Your task to perform on an android device: Go to wifi settings Image 0: 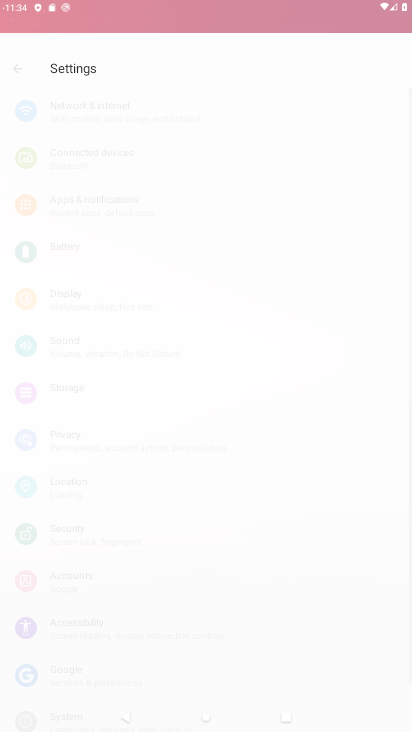
Step 0: press home button
Your task to perform on an android device: Go to wifi settings Image 1: 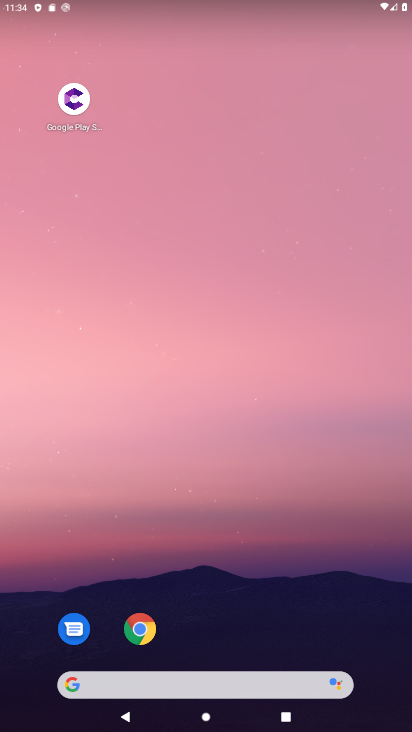
Step 1: press home button
Your task to perform on an android device: Go to wifi settings Image 2: 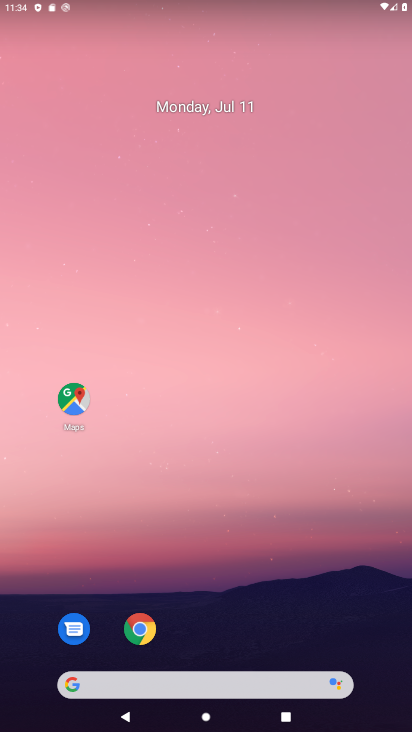
Step 2: drag from (340, 588) to (332, 138)
Your task to perform on an android device: Go to wifi settings Image 3: 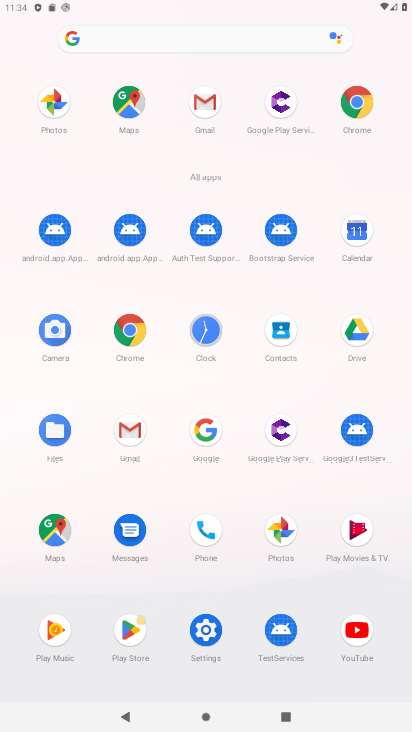
Step 3: click (199, 634)
Your task to perform on an android device: Go to wifi settings Image 4: 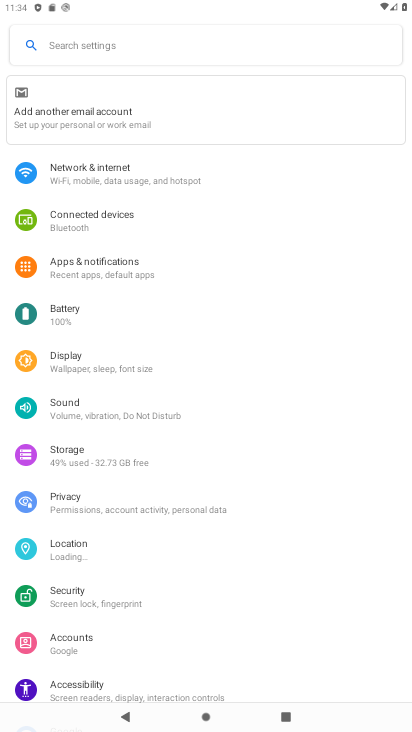
Step 4: drag from (347, 539) to (356, 448)
Your task to perform on an android device: Go to wifi settings Image 5: 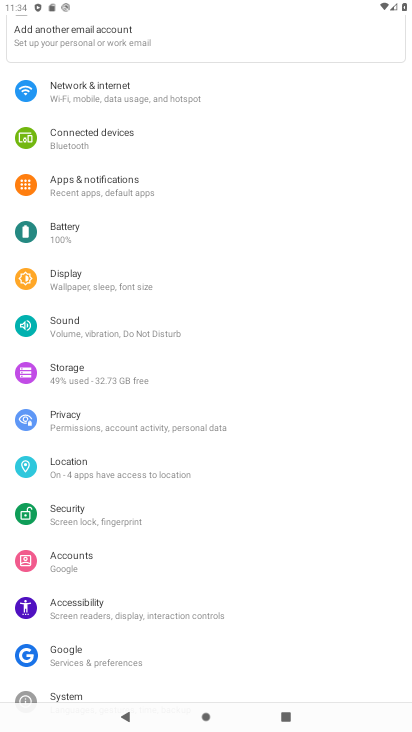
Step 5: drag from (340, 554) to (351, 458)
Your task to perform on an android device: Go to wifi settings Image 6: 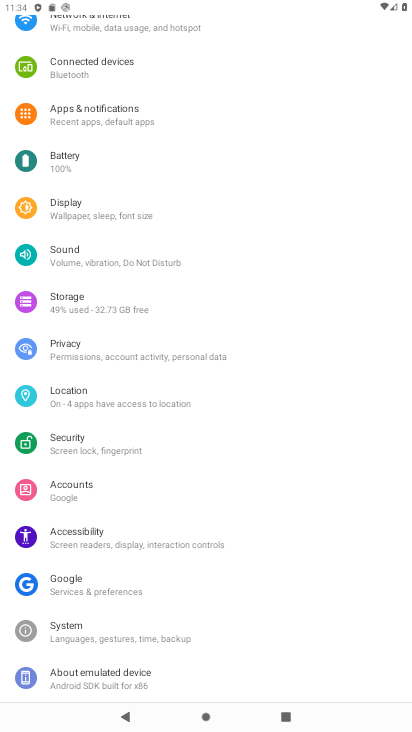
Step 6: drag from (336, 549) to (355, 362)
Your task to perform on an android device: Go to wifi settings Image 7: 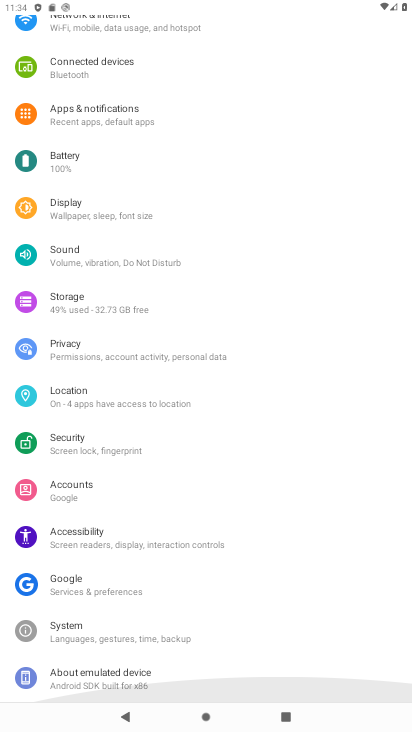
Step 7: drag from (355, 257) to (356, 360)
Your task to perform on an android device: Go to wifi settings Image 8: 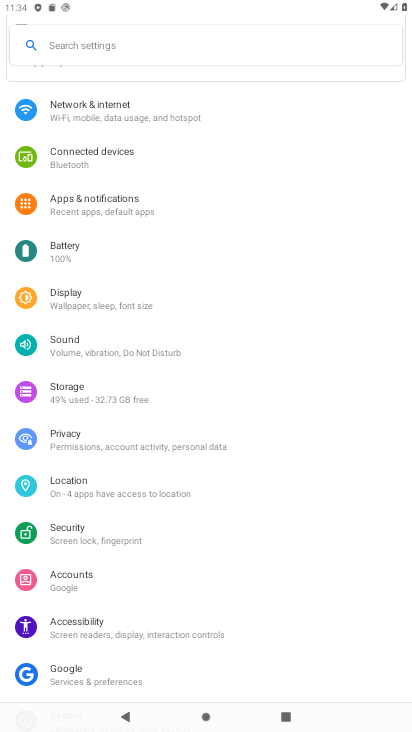
Step 8: drag from (348, 252) to (358, 411)
Your task to perform on an android device: Go to wifi settings Image 9: 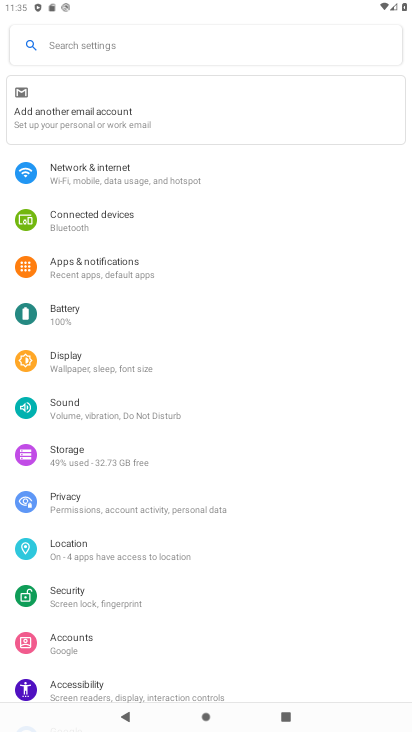
Step 9: click (200, 180)
Your task to perform on an android device: Go to wifi settings Image 10: 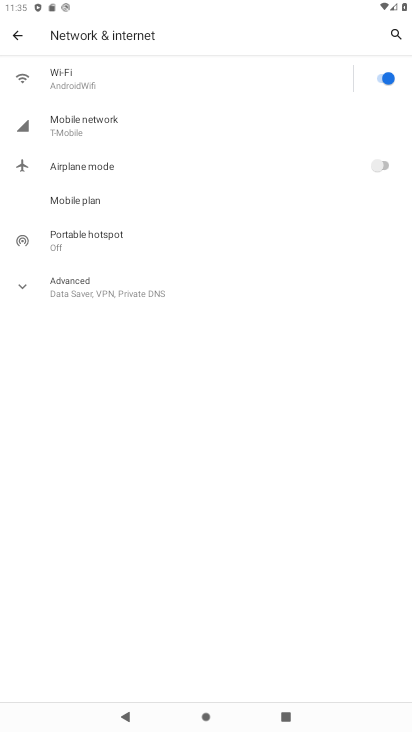
Step 10: click (107, 77)
Your task to perform on an android device: Go to wifi settings Image 11: 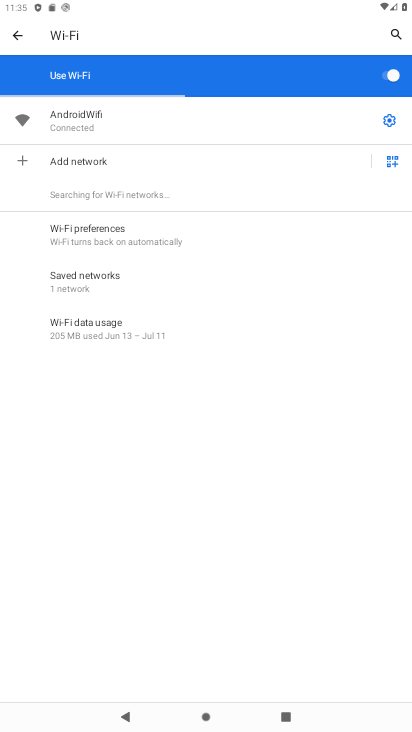
Step 11: task complete